Your task to perform on an android device: Open eBay Image 0: 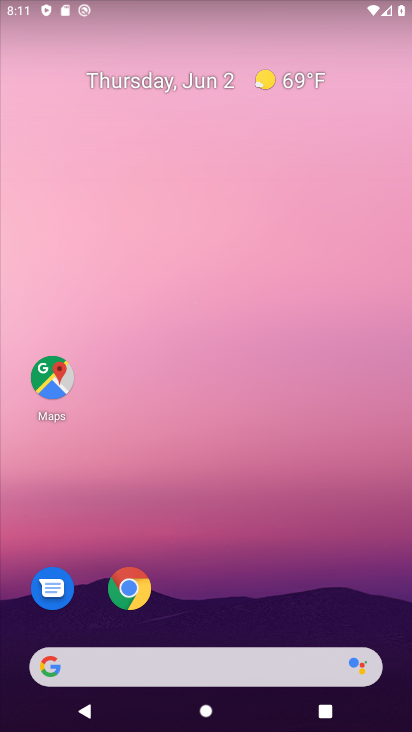
Step 0: click (124, 588)
Your task to perform on an android device: Open eBay Image 1: 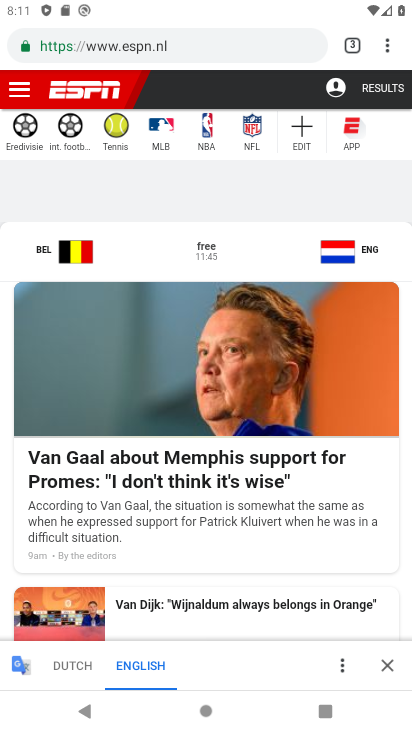
Step 1: click (387, 49)
Your task to perform on an android device: Open eBay Image 2: 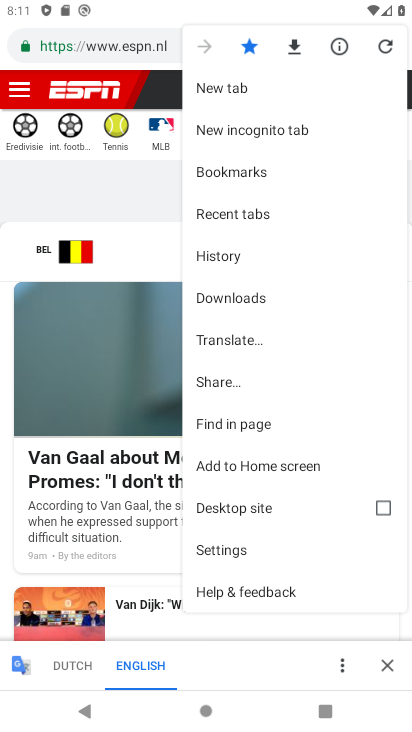
Step 2: click (240, 84)
Your task to perform on an android device: Open eBay Image 3: 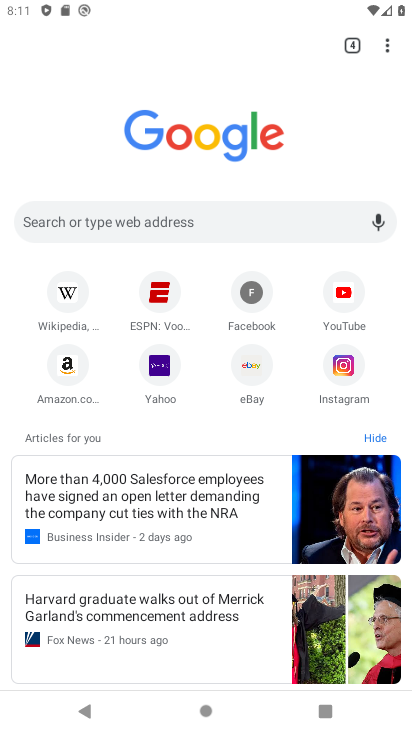
Step 3: click (251, 362)
Your task to perform on an android device: Open eBay Image 4: 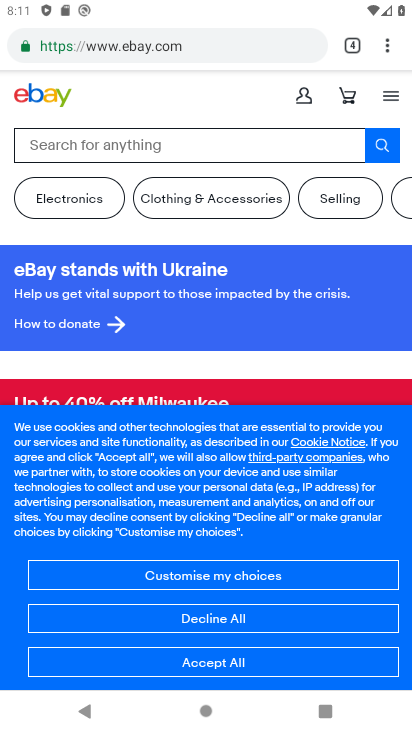
Step 4: task complete